Your task to perform on an android device: Open the map Image 0: 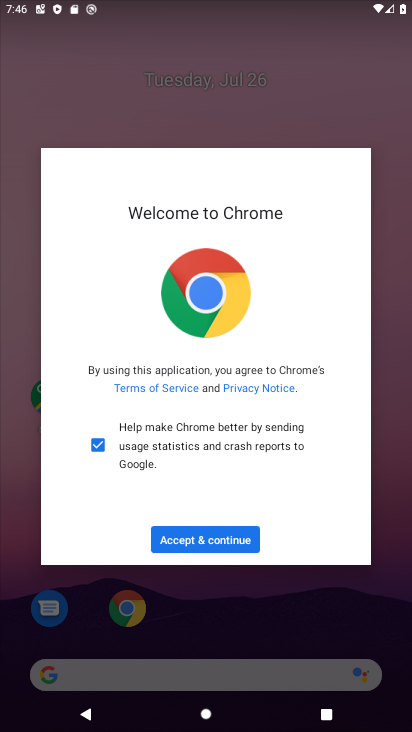
Step 0: click (223, 534)
Your task to perform on an android device: Open the map Image 1: 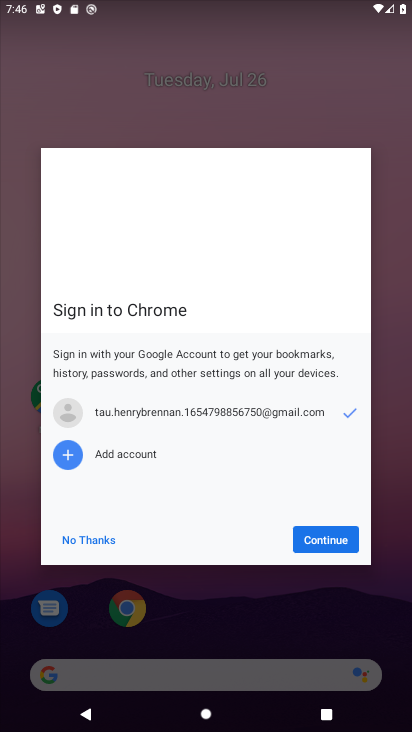
Step 1: click (336, 514)
Your task to perform on an android device: Open the map Image 2: 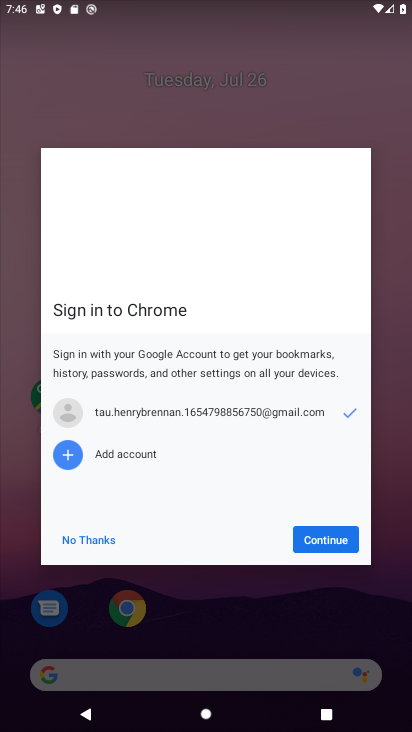
Step 2: click (334, 537)
Your task to perform on an android device: Open the map Image 3: 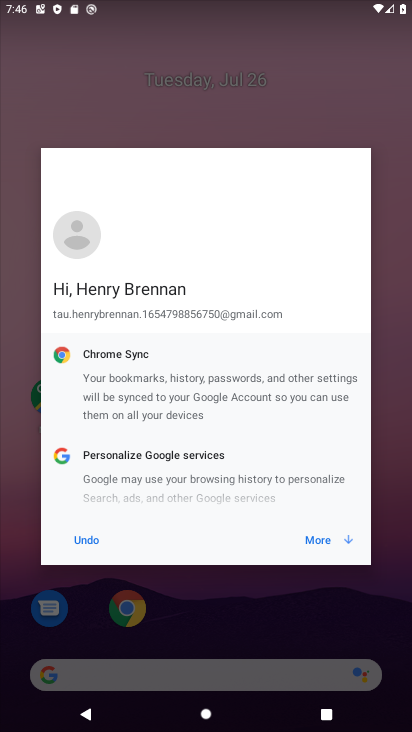
Step 3: click (321, 545)
Your task to perform on an android device: Open the map Image 4: 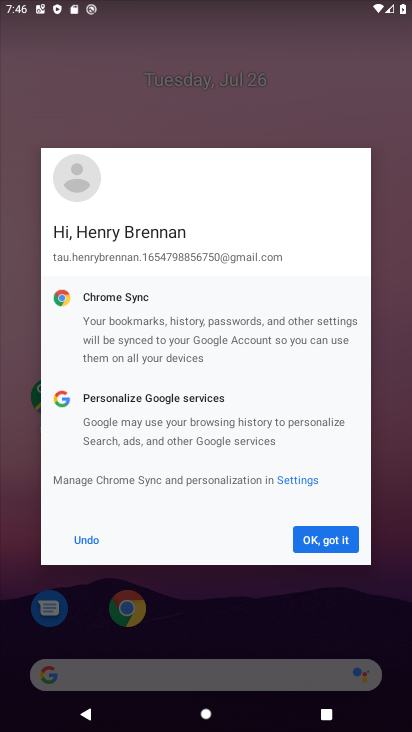
Step 4: click (321, 542)
Your task to perform on an android device: Open the map Image 5: 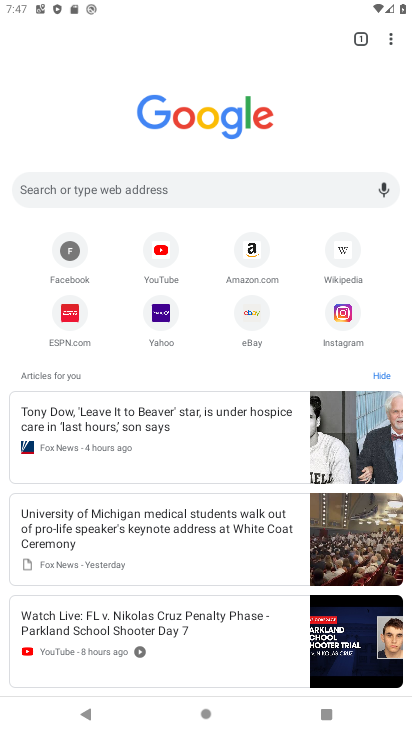
Step 5: task complete